Your task to perform on an android device: Show me the alarms in the clock app Image 0: 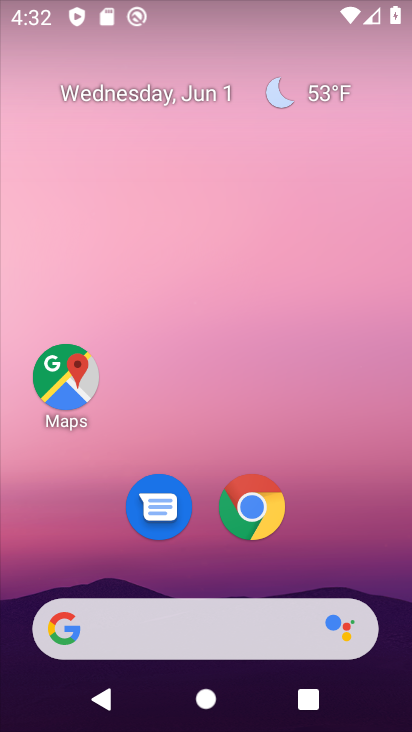
Step 0: drag from (374, 555) to (352, 24)
Your task to perform on an android device: Show me the alarms in the clock app Image 1: 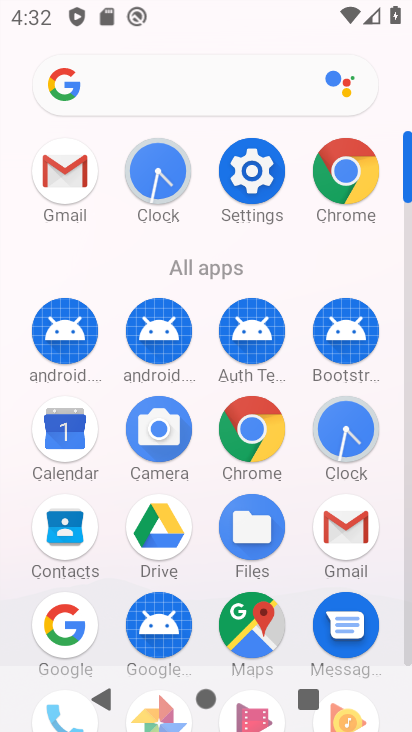
Step 1: click (355, 440)
Your task to perform on an android device: Show me the alarms in the clock app Image 2: 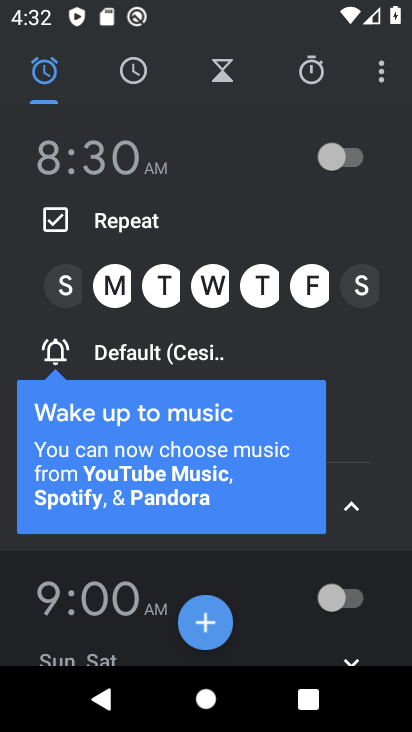
Step 2: task complete